Your task to perform on an android device: add a label to a message in the gmail app Image 0: 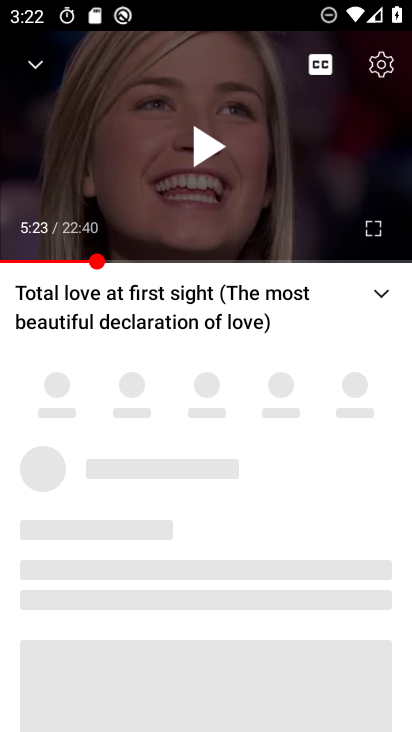
Step 0: press home button
Your task to perform on an android device: add a label to a message in the gmail app Image 1: 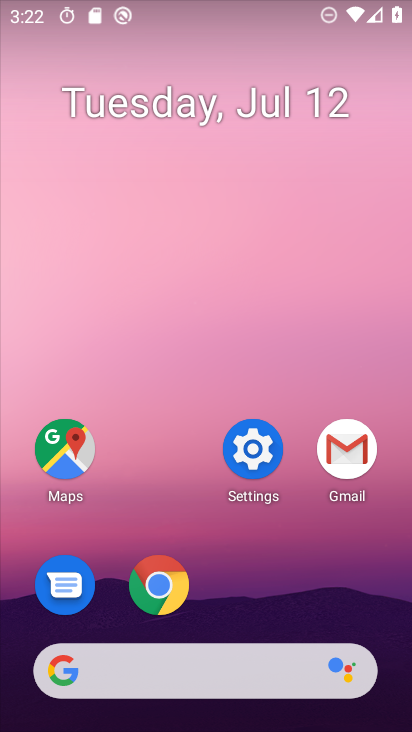
Step 1: click (344, 438)
Your task to perform on an android device: add a label to a message in the gmail app Image 2: 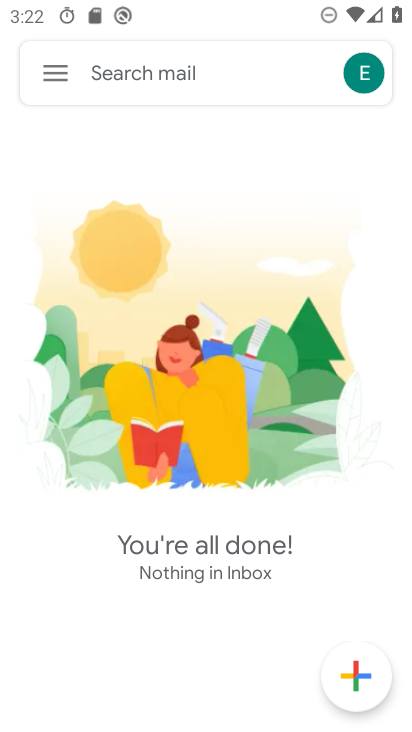
Step 2: task complete